Your task to perform on an android device: change notification settings in the gmail app Image 0: 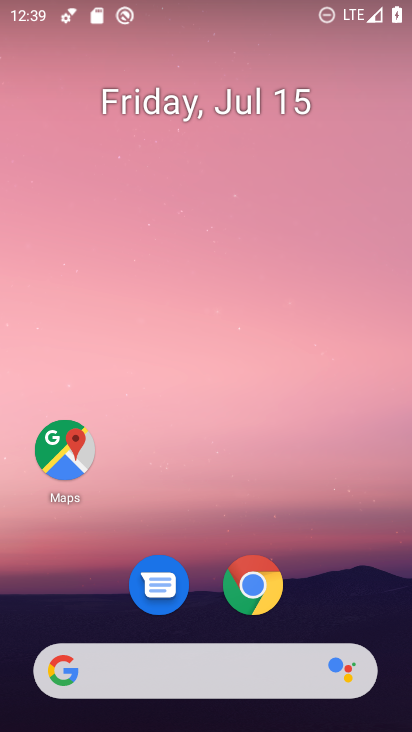
Step 0: drag from (319, 558) to (344, 22)
Your task to perform on an android device: change notification settings in the gmail app Image 1: 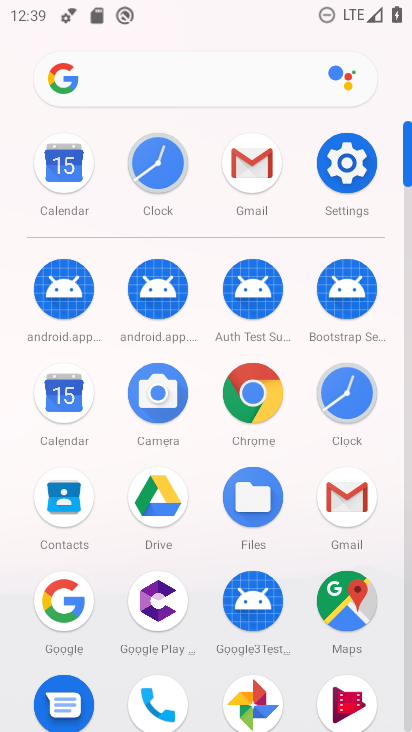
Step 1: click (252, 167)
Your task to perform on an android device: change notification settings in the gmail app Image 2: 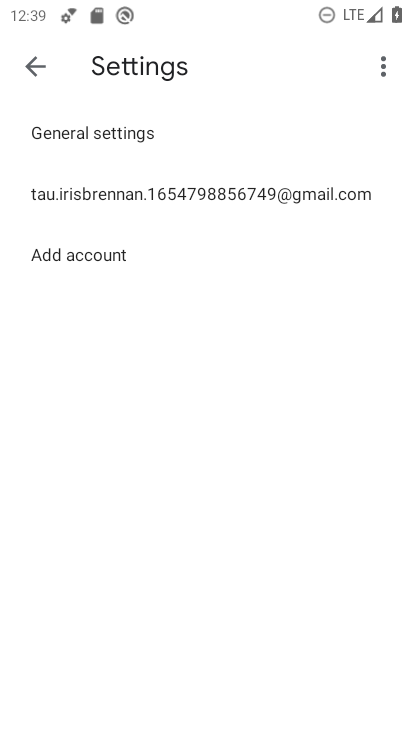
Step 2: click (145, 184)
Your task to perform on an android device: change notification settings in the gmail app Image 3: 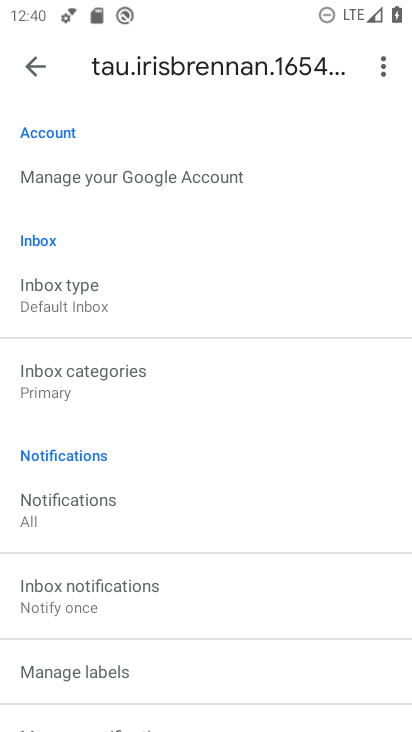
Step 3: drag from (173, 640) to (186, 275)
Your task to perform on an android device: change notification settings in the gmail app Image 4: 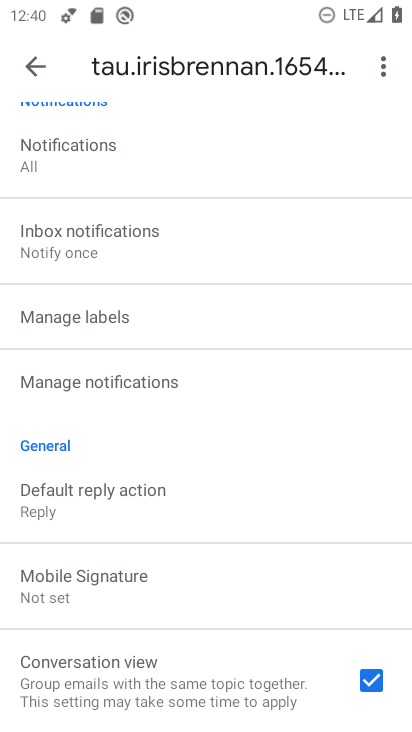
Step 4: click (173, 367)
Your task to perform on an android device: change notification settings in the gmail app Image 5: 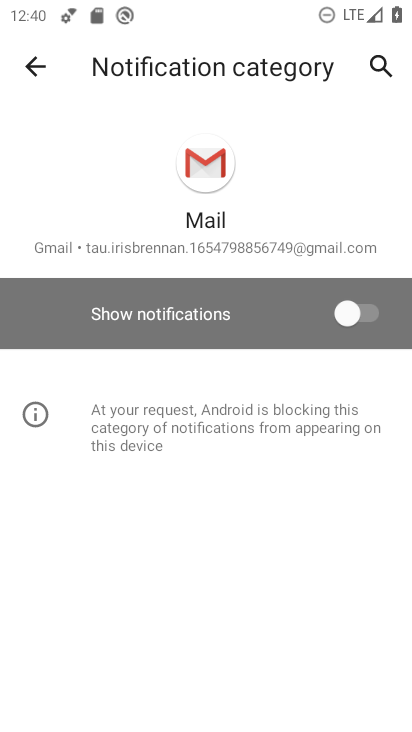
Step 5: click (359, 318)
Your task to perform on an android device: change notification settings in the gmail app Image 6: 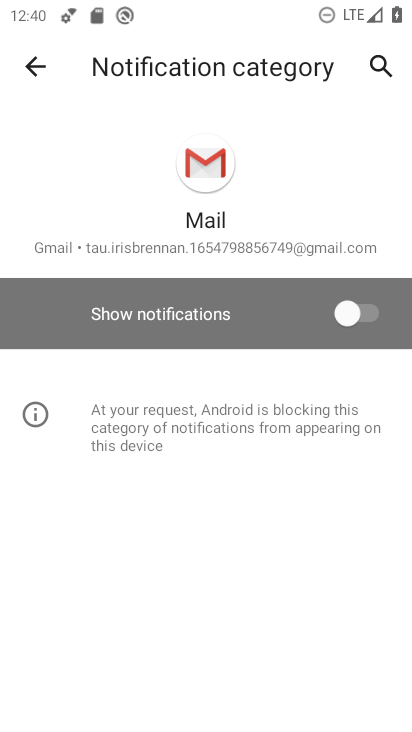
Step 6: click (360, 318)
Your task to perform on an android device: change notification settings in the gmail app Image 7: 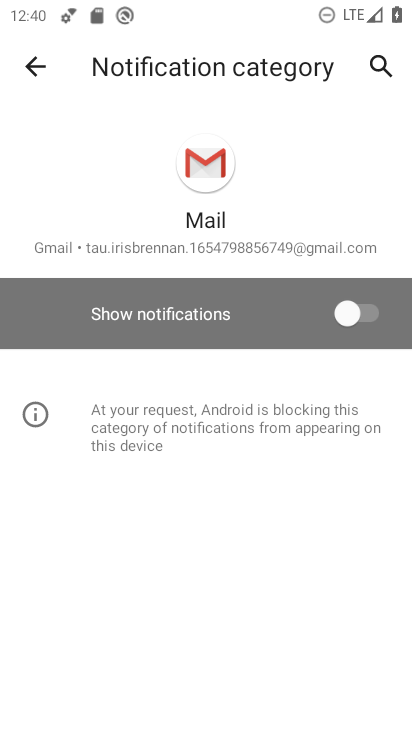
Step 7: click (27, 63)
Your task to perform on an android device: change notification settings in the gmail app Image 8: 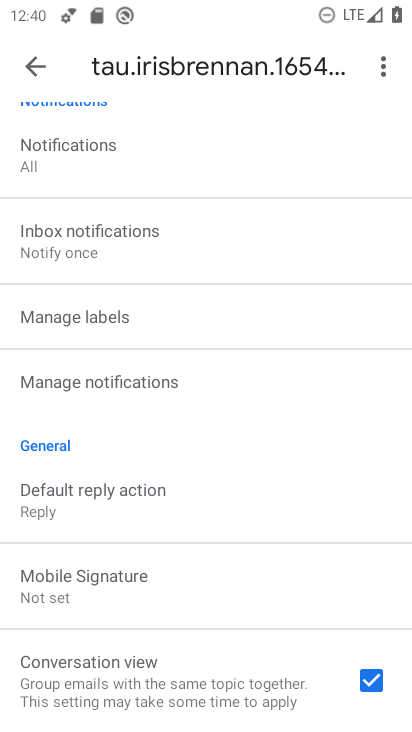
Step 8: click (33, 59)
Your task to perform on an android device: change notification settings in the gmail app Image 9: 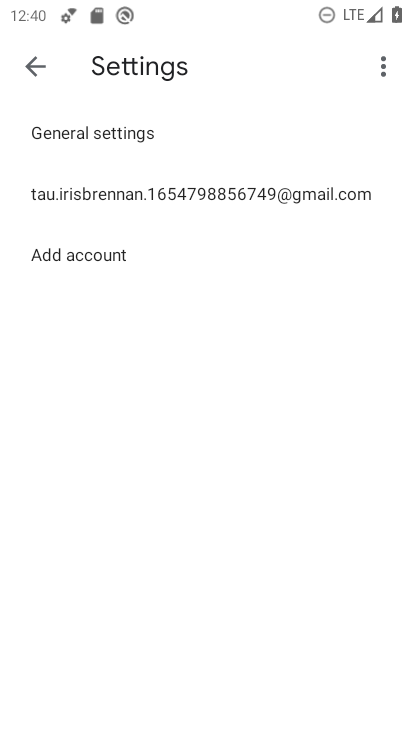
Step 9: click (142, 128)
Your task to perform on an android device: change notification settings in the gmail app Image 10: 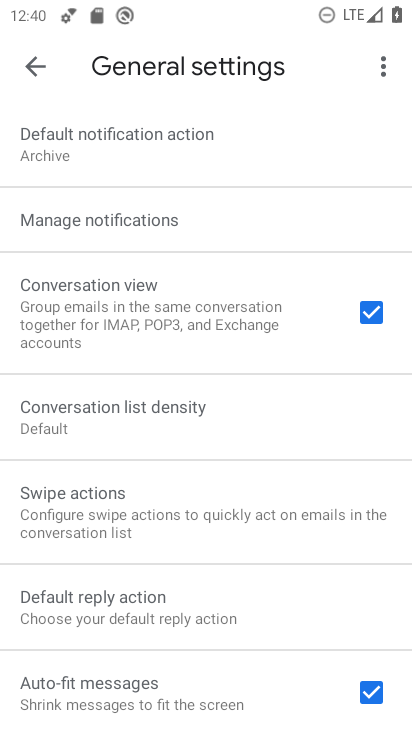
Step 10: click (172, 211)
Your task to perform on an android device: change notification settings in the gmail app Image 11: 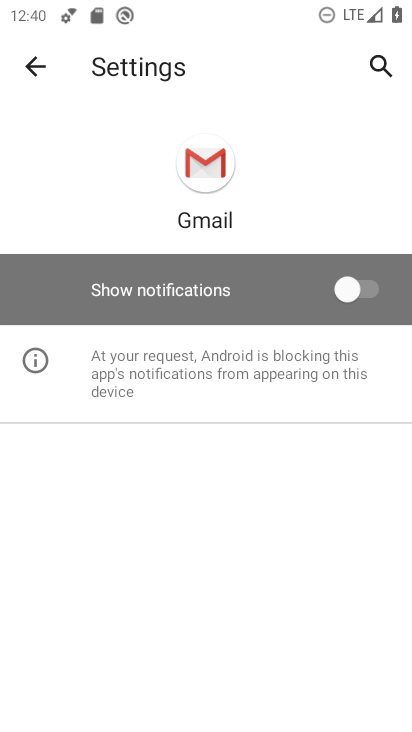
Step 11: click (361, 289)
Your task to perform on an android device: change notification settings in the gmail app Image 12: 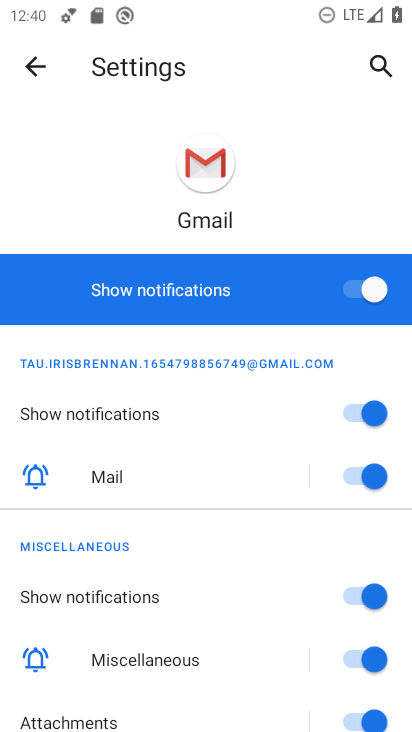
Step 12: task complete